Your task to perform on an android device: Open Google Image 0: 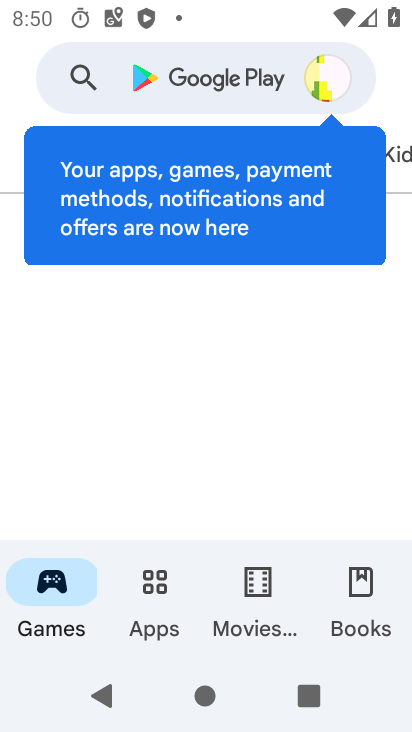
Step 0: press home button
Your task to perform on an android device: Open Google Image 1: 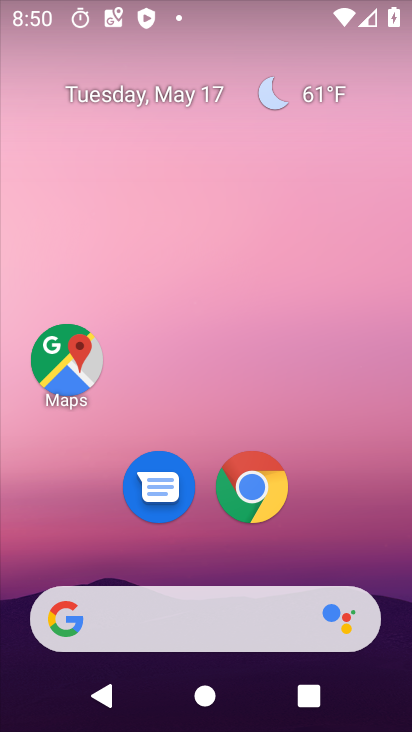
Step 1: drag from (209, 600) to (359, 167)
Your task to perform on an android device: Open Google Image 2: 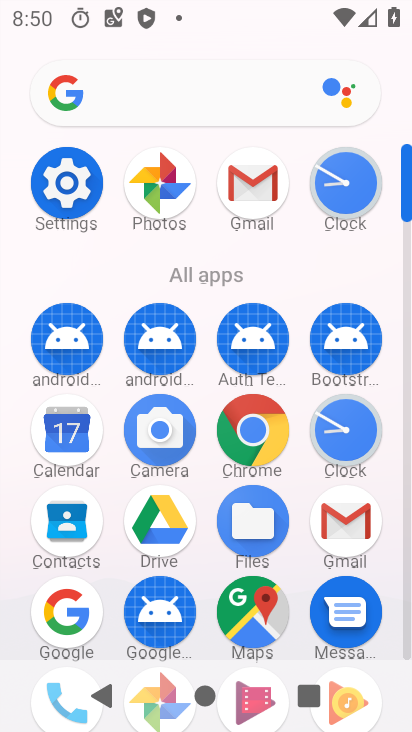
Step 2: click (79, 616)
Your task to perform on an android device: Open Google Image 3: 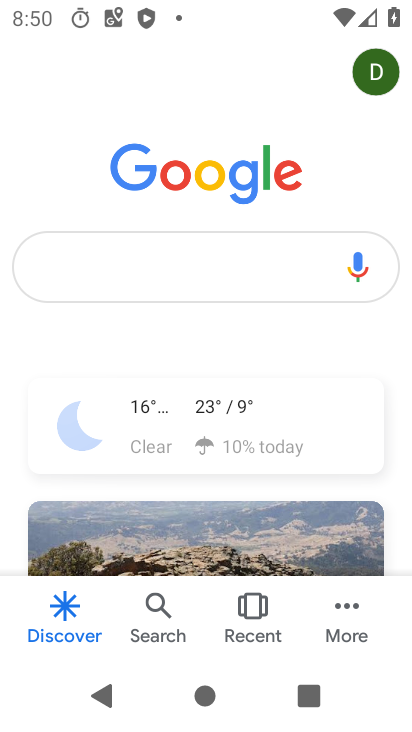
Step 3: task complete